Your task to perform on an android device: check google app version Image 0: 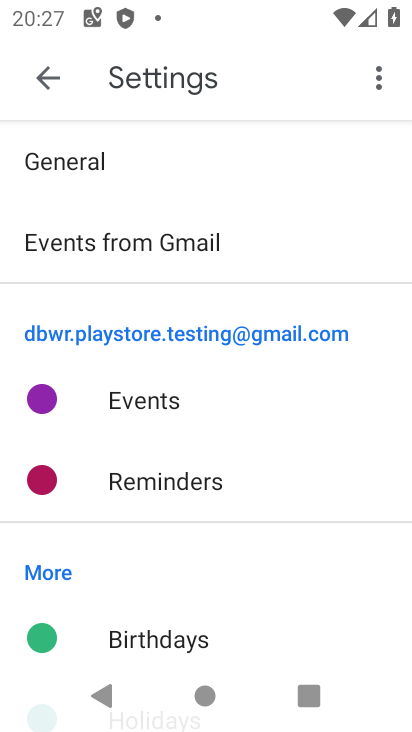
Step 0: press home button
Your task to perform on an android device: check google app version Image 1: 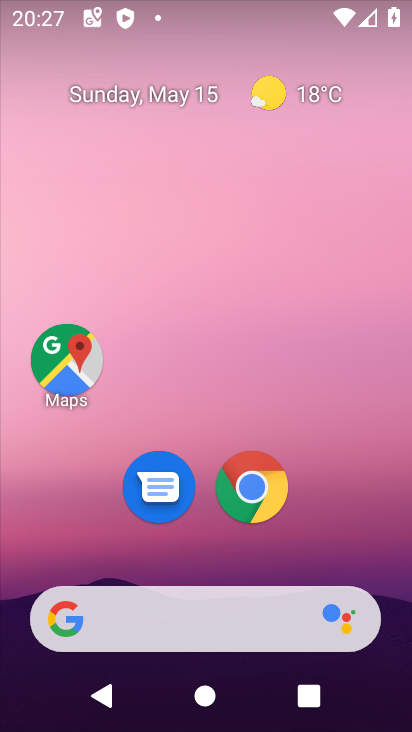
Step 1: click (379, 266)
Your task to perform on an android device: check google app version Image 2: 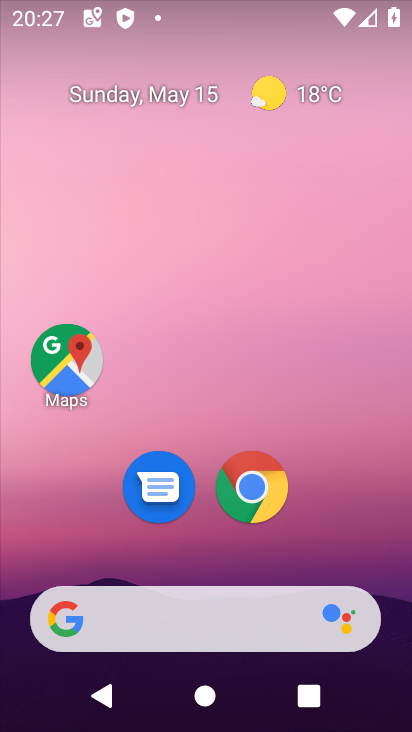
Step 2: drag from (408, 672) to (381, 302)
Your task to perform on an android device: check google app version Image 3: 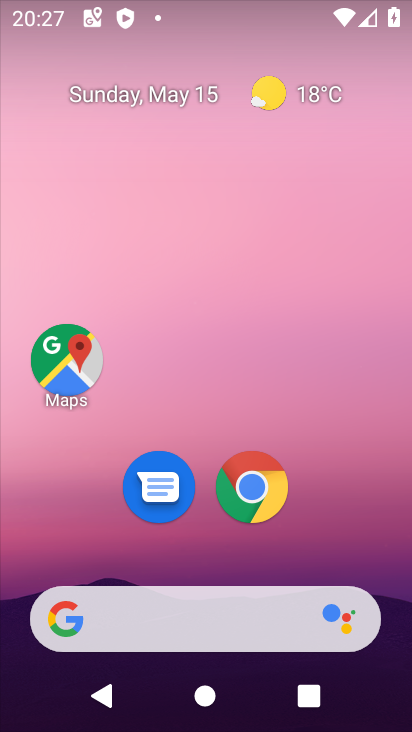
Step 3: drag from (399, 680) to (390, 172)
Your task to perform on an android device: check google app version Image 4: 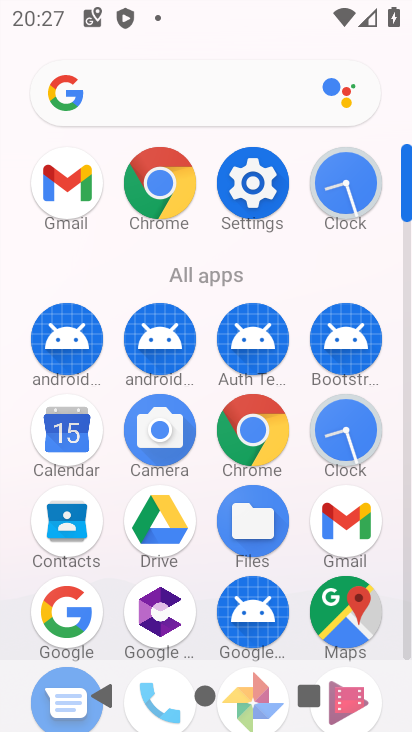
Step 4: click (39, 604)
Your task to perform on an android device: check google app version Image 5: 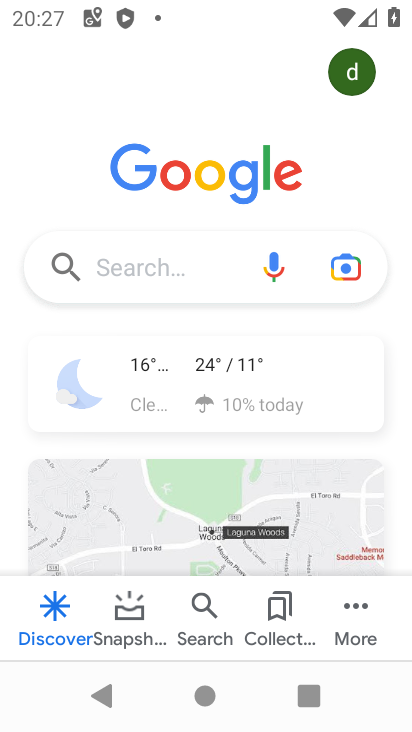
Step 5: click (359, 627)
Your task to perform on an android device: check google app version Image 6: 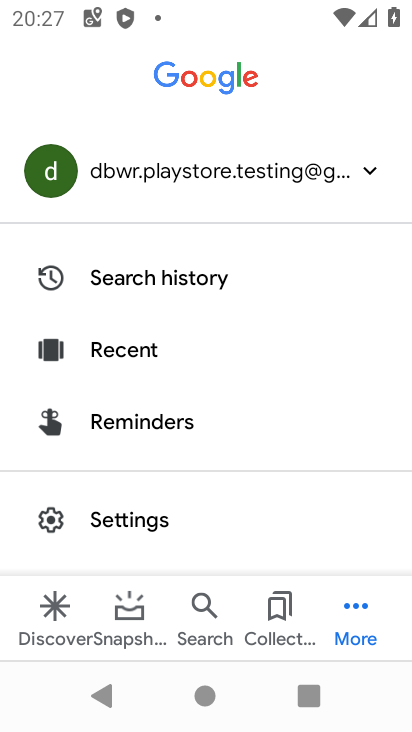
Step 6: drag from (252, 520) to (242, 363)
Your task to perform on an android device: check google app version Image 7: 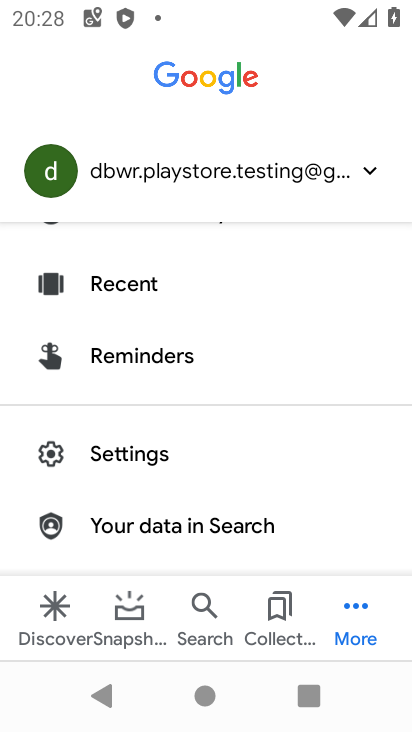
Step 7: click (107, 448)
Your task to perform on an android device: check google app version Image 8: 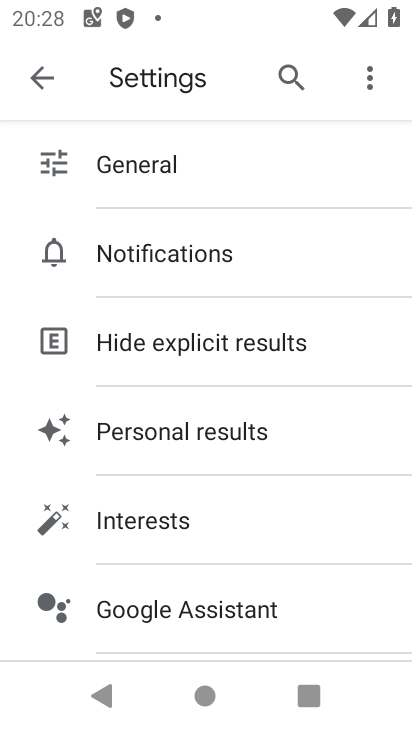
Step 8: drag from (314, 603) to (322, 307)
Your task to perform on an android device: check google app version Image 9: 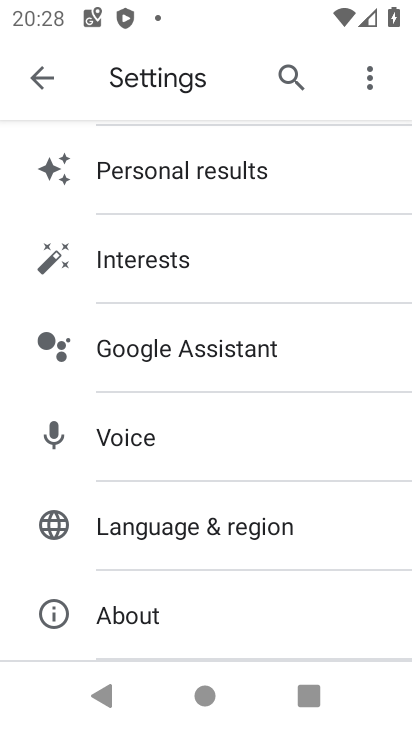
Step 9: drag from (318, 597) to (308, 320)
Your task to perform on an android device: check google app version Image 10: 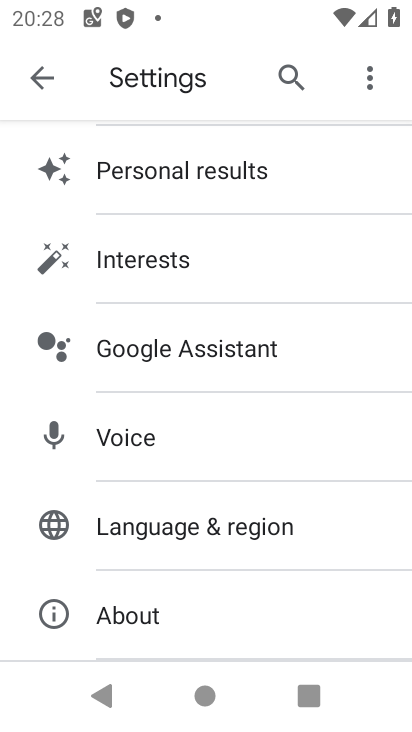
Step 10: click (124, 613)
Your task to perform on an android device: check google app version Image 11: 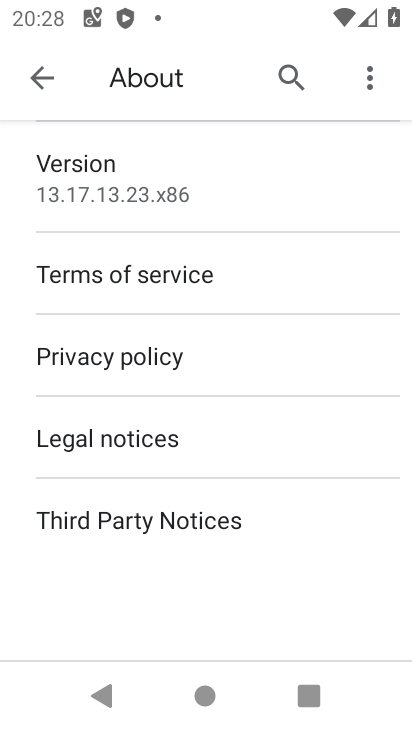
Step 11: click (86, 182)
Your task to perform on an android device: check google app version Image 12: 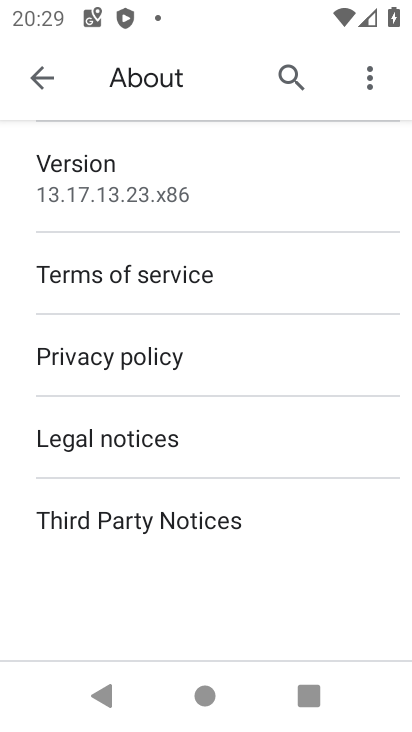
Step 12: task complete